Your task to perform on an android device: show emergency info Image 0: 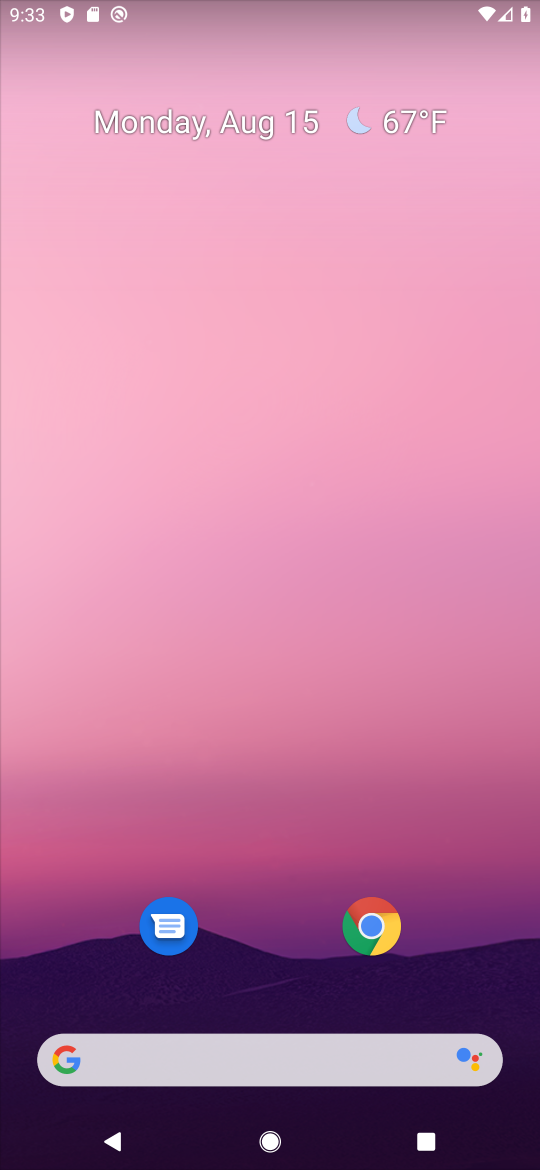
Step 0: press home button
Your task to perform on an android device: show emergency info Image 1: 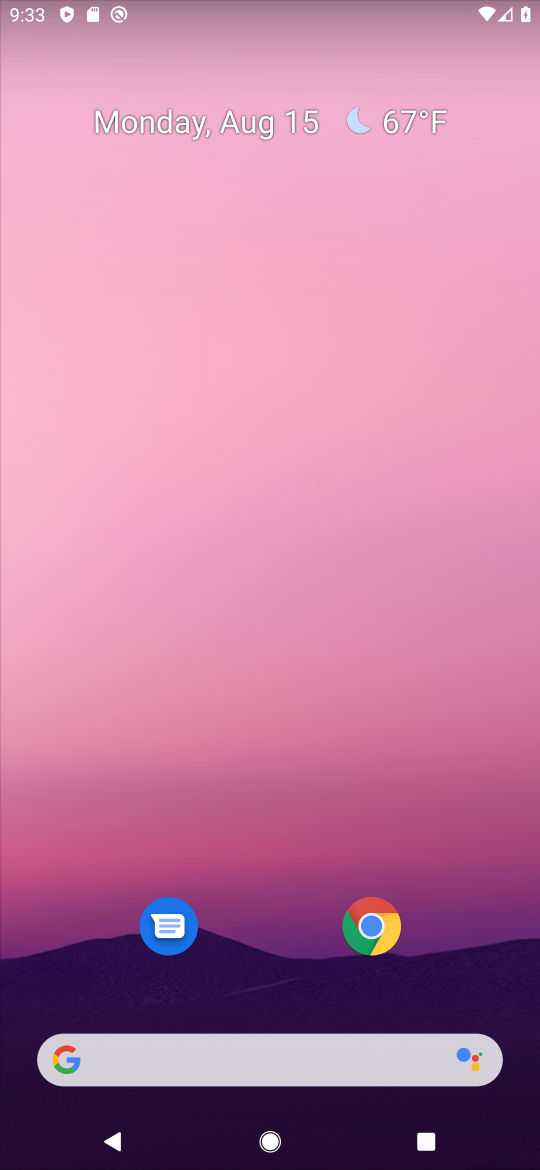
Step 1: drag from (263, 1010) to (260, 765)
Your task to perform on an android device: show emergency info Image 2: 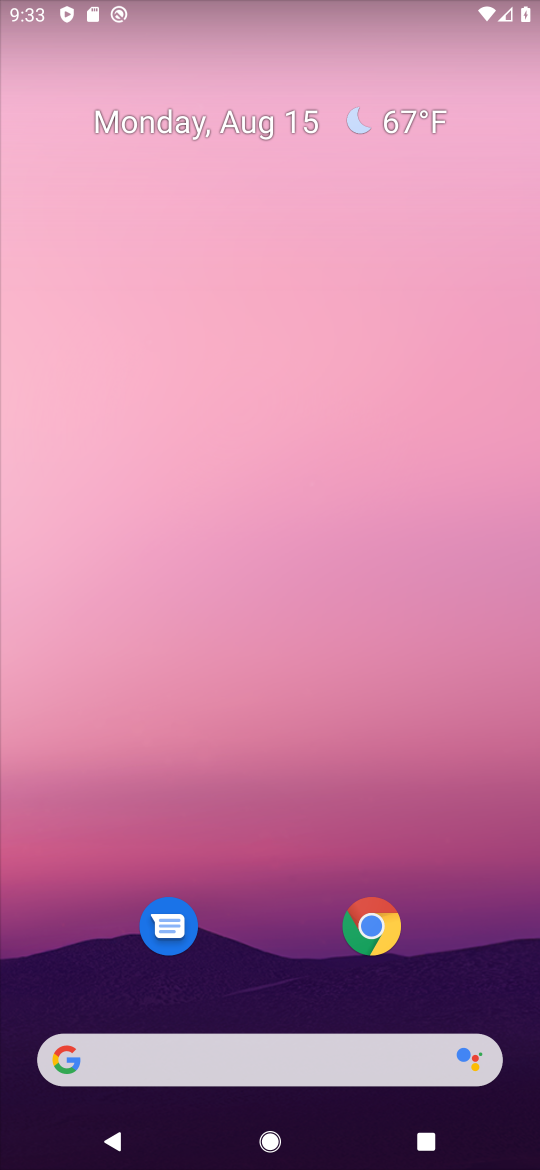
Step 2: drag from (272, 1036) to (404, 45)
Your task to perform on an android device: show emergency info Image 3: 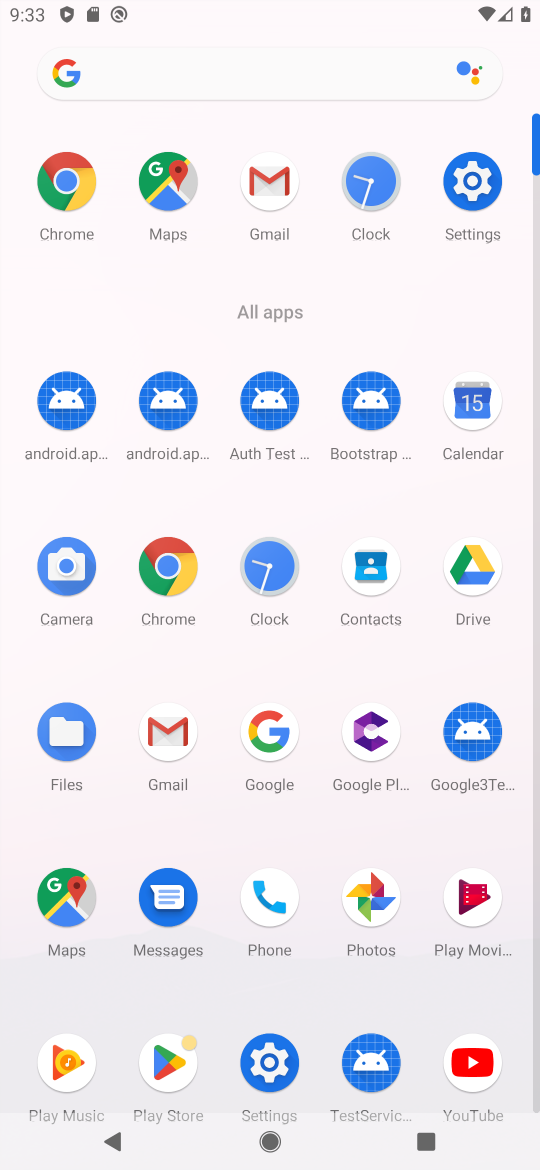
Step 3: click (272, 1066)
Your task to perform on an android device: show emergency info Image 4: 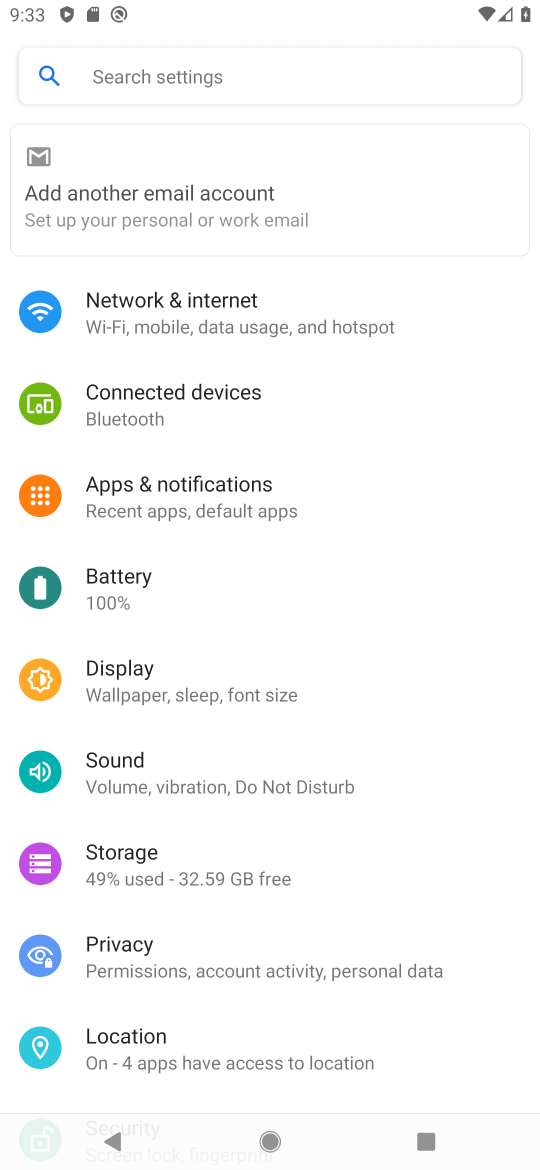
Step 4: drag from (320, 1036) to (218, 502)
Your task to perform on an android device: show emergency info Image 5: 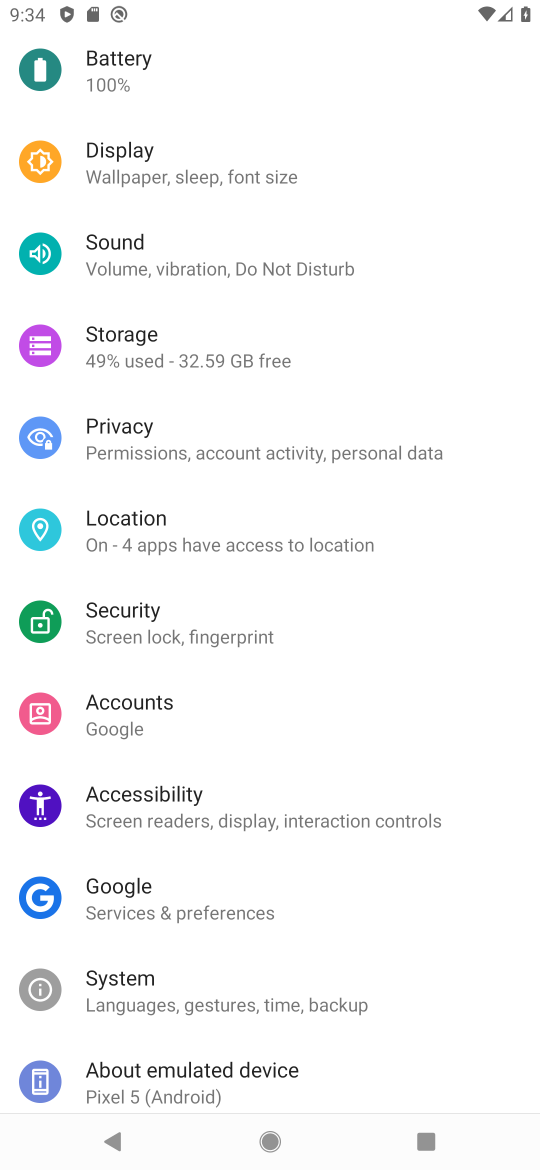
Step 5: click (175, 995)
Your task to perform on an android device: show emergency info Image 6: 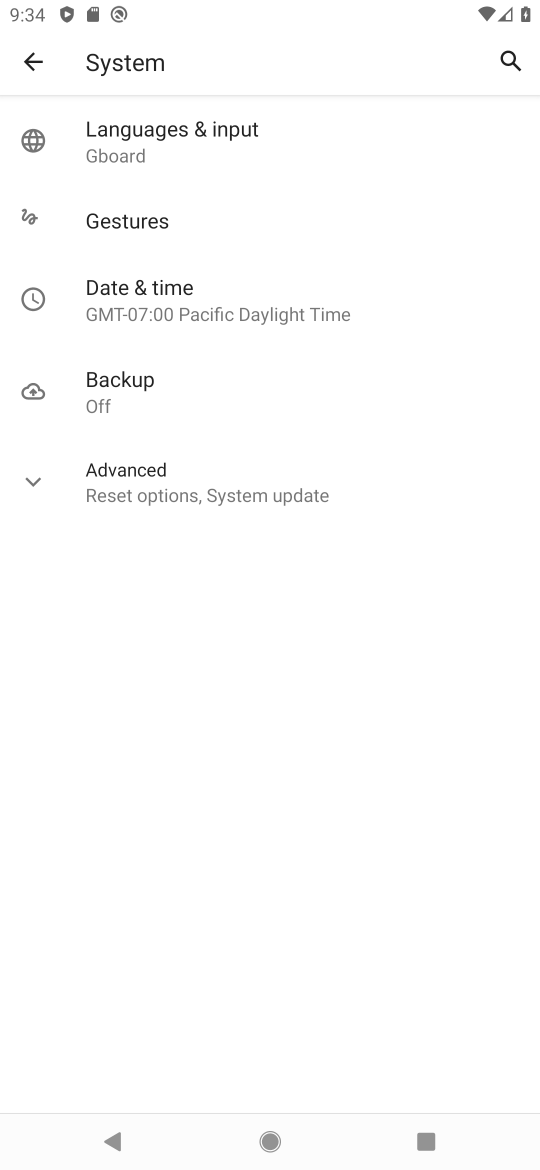
Step 6: click (28, 47)
Your task to perform on an android device: show emergency info Image 7: 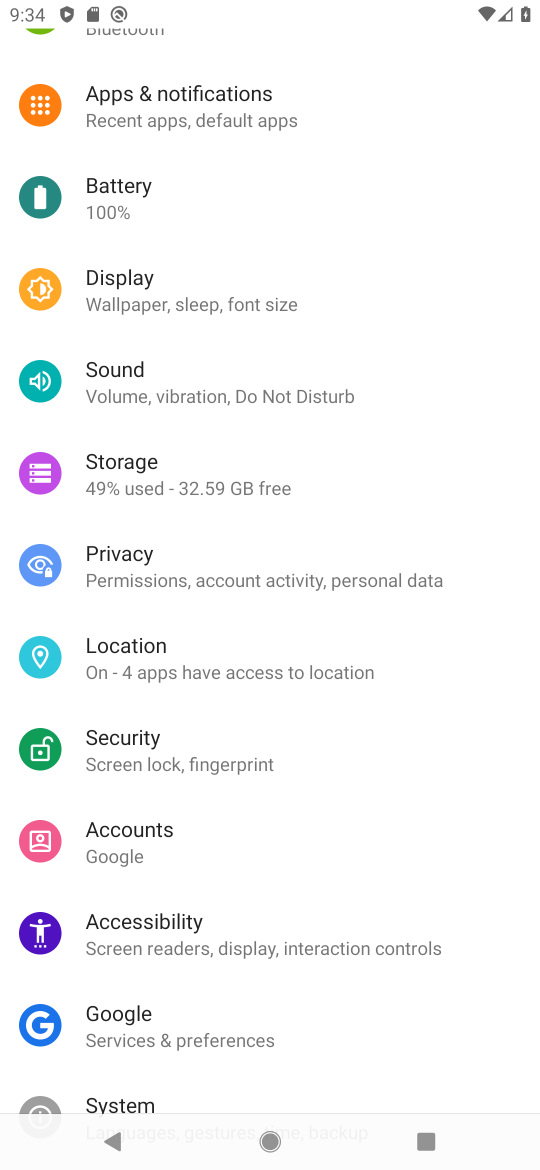
Step 7: drag from (53, 1078) to (115, 604)
Your task to perform on an android device: show emergency info Image 8: 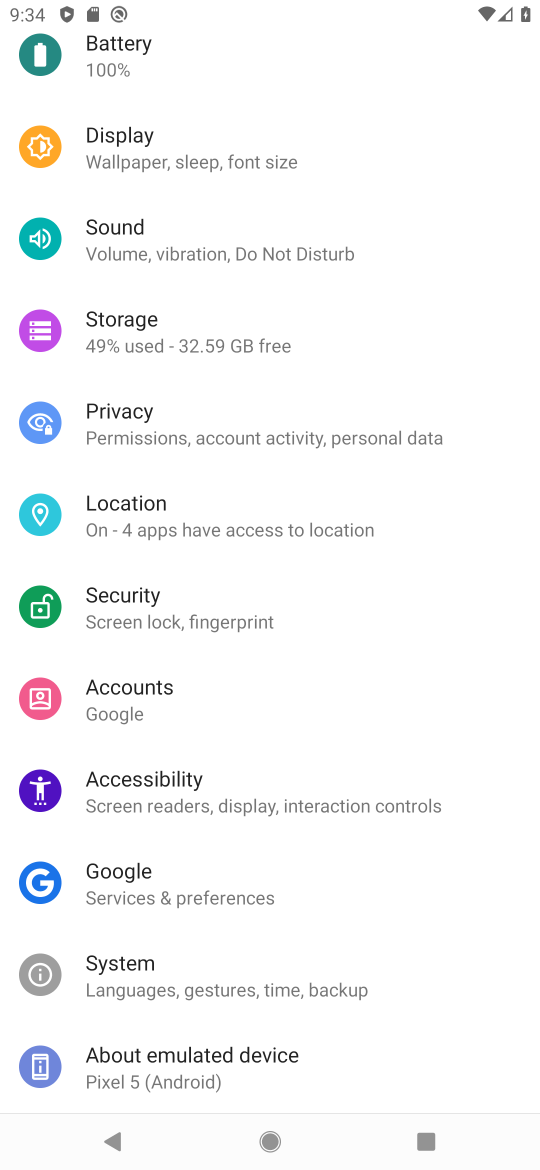
Step 8: click (147, 1056)
Your task to perform on an android device: show emergency info Image 9: 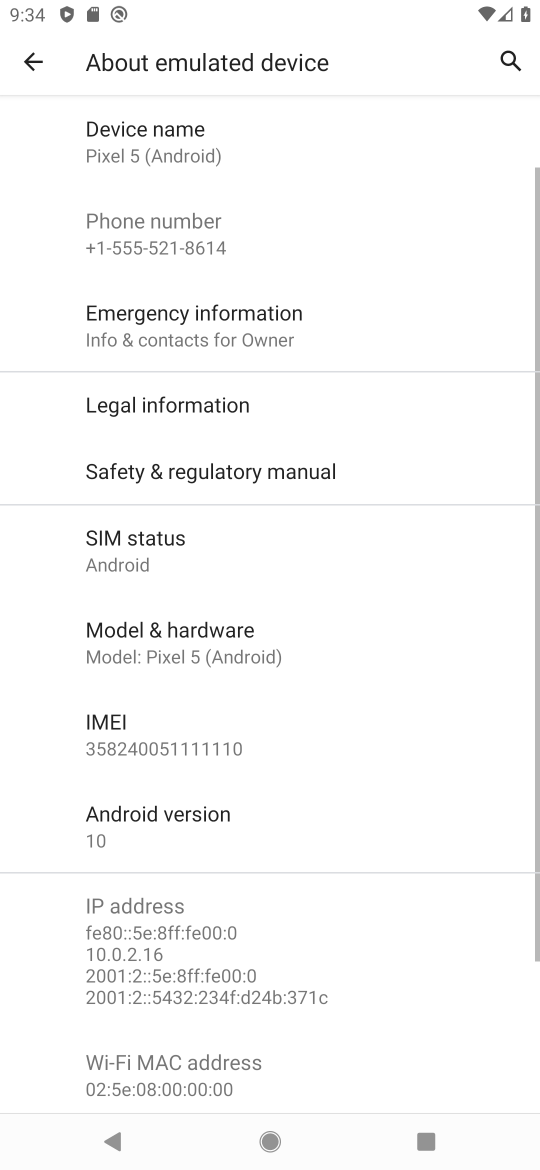
Step 9: click (185, 348)
Your task to perform on an android device: show emergency info Image 10: 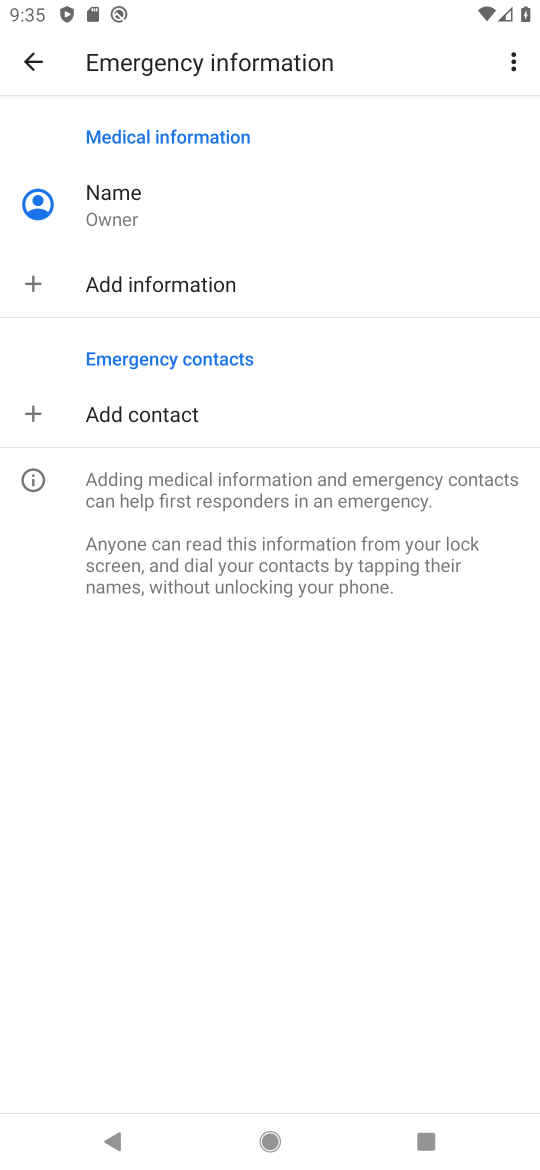
Step 10: task complete